Your task to perform on an android device: read, delete, or share a saved page in the chrome app Image 0: 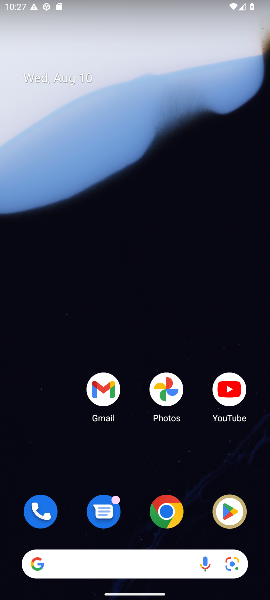
Step 0: click (170, 505)
Your task to perform on an android device: read, delete, or share a saved page in the chrome app Image 1: 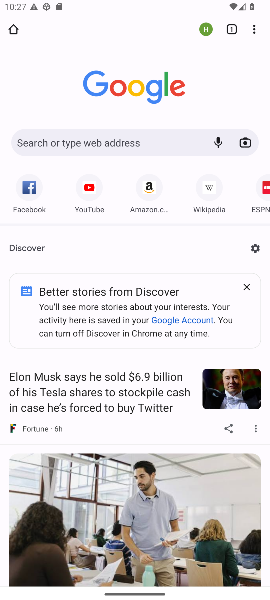
Step 1: click (168, 515)
Your task to perform on an android device: read, delete, or share a saved page in the chrome app Image 2: 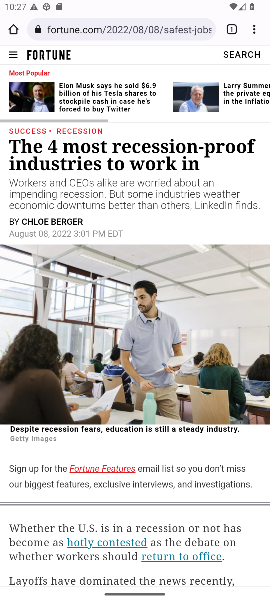
Step 2: click (257, 23)
Your task to perform on an android device: read, delete, or share a saved page in the chrome app Image 3: 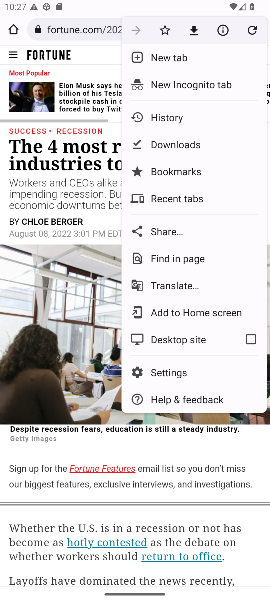
Step 3: click (207, 137)
Your task to perform on an android device: read, delete, or share a saved page in the chrome app Image 4: 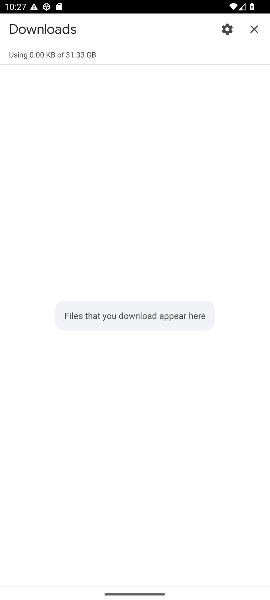
Step 4: click (178, 144)
Your task to perform on an android device: read, delete, or share a saved page in the chrome app Image 5: 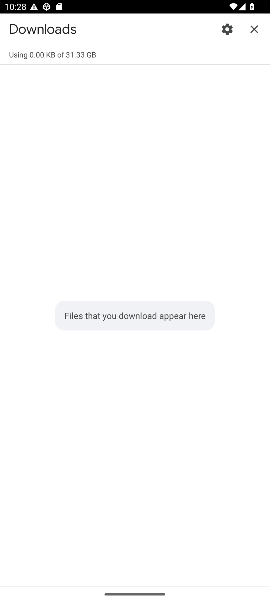
Step 5: task complete